Your task to perform on an android device: Open calendar and show me the fourth week of next month Image 0: 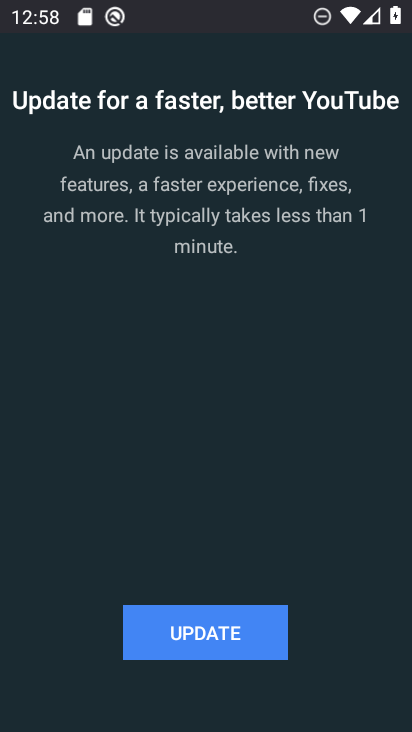
Step 0: press home button
Your task to perform on an android device: Open calendar and show me the fourth week of next month Image 1: 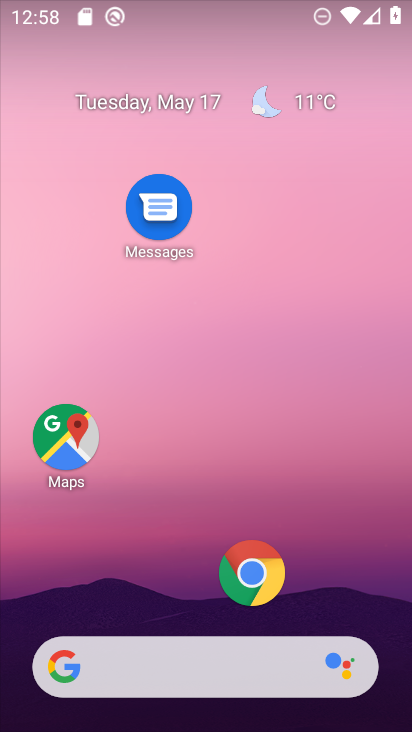
Step 1: drag from (186, 608) to (225, 150)
Your task to perform on an android device: Open calendar and show me the fourth week of next month Image 2: 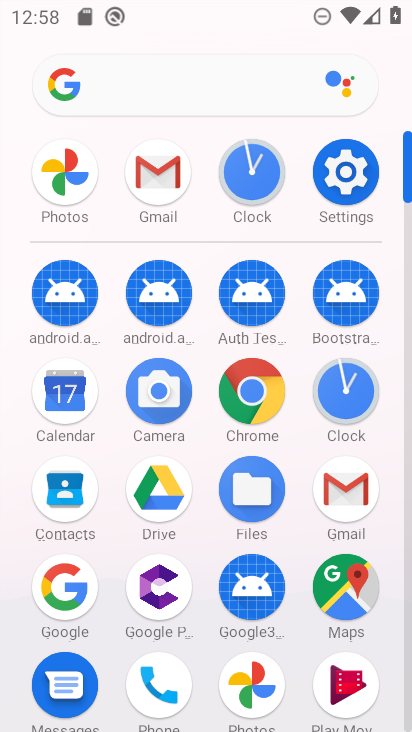
Step 2: click (63, 384)
Your task to perform on an android device: Open calendar and show me the fourth week of next month Image 3: 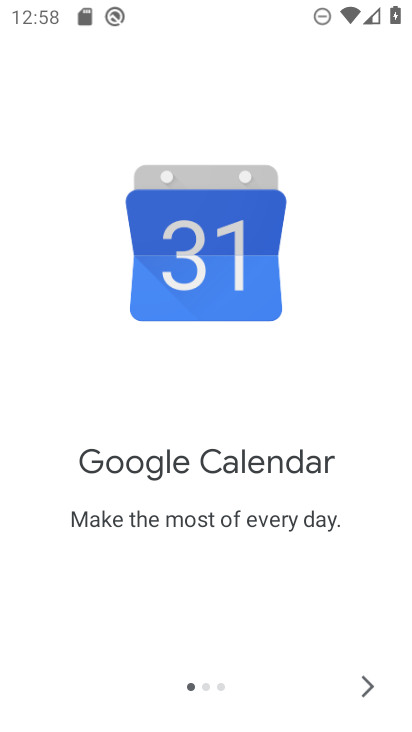
Step 3: click (366, 678)
Your task to perform on an android device: Open calendar and show me the fourth week of next month Image 4: 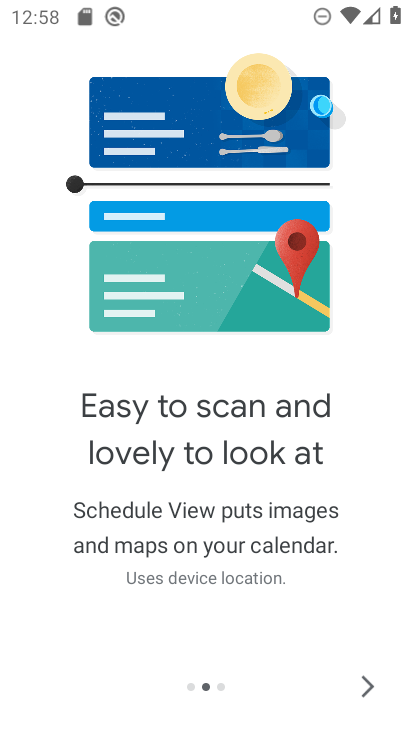
Step 4: click (372, 684)
Your task to perform on an android device: Open calendar and show me the fourth week of next month Image 5: 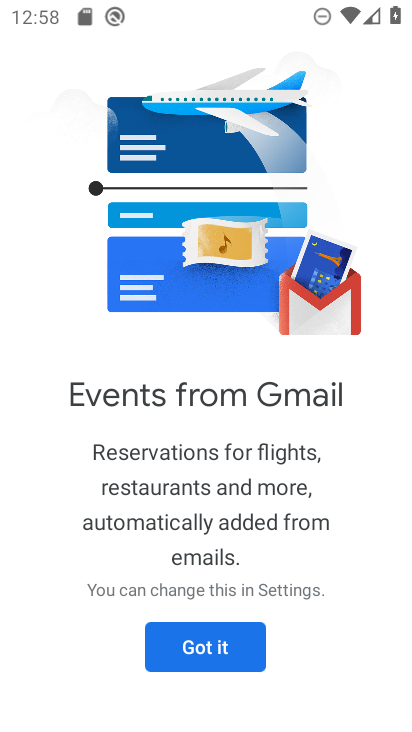
Step 5: click (206, 646)
Your task to perform on an android device: Open calendar and show me the fourth week of next month Image 6: 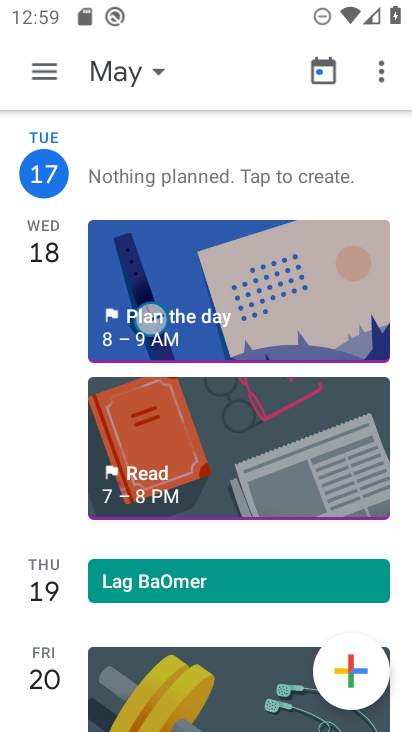
Step 6: click (49, 81)
Your task to perform on an android device: Open calendar and show me the fourth week of next month Image 7: 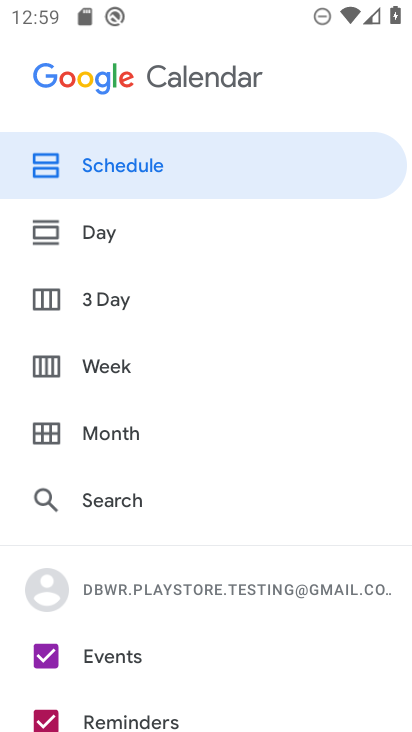
Step 7: click (71, 368)
Your task to perform on an android device: Open calendar and show me the fourth week of next month Image 8: 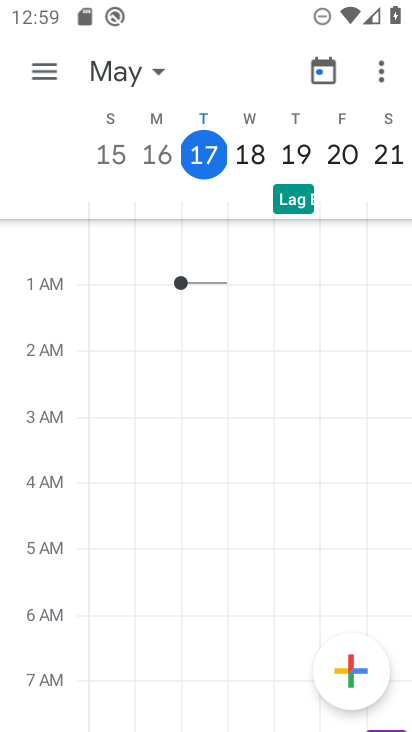
Step 8: drag from (385, 165) to (58, 148)
Your task to perform on an android device: Open calendar and show me the fourth week of next month Image 9: 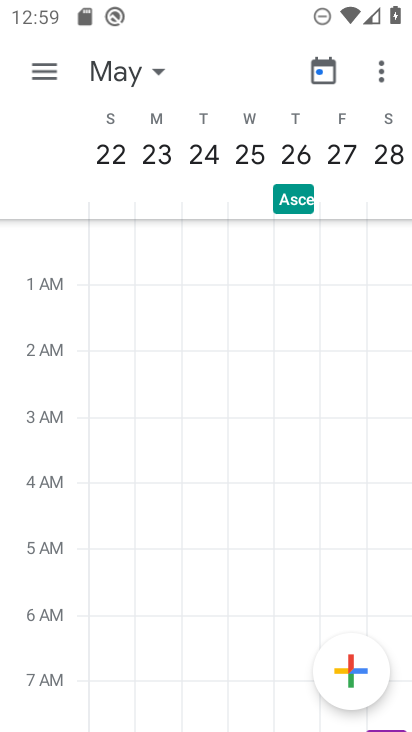
Step 9: drag from (383, 153) to (61, 134)
Your task to perform on an android device: Open calendar and show me the fourth week of next month Image 10: 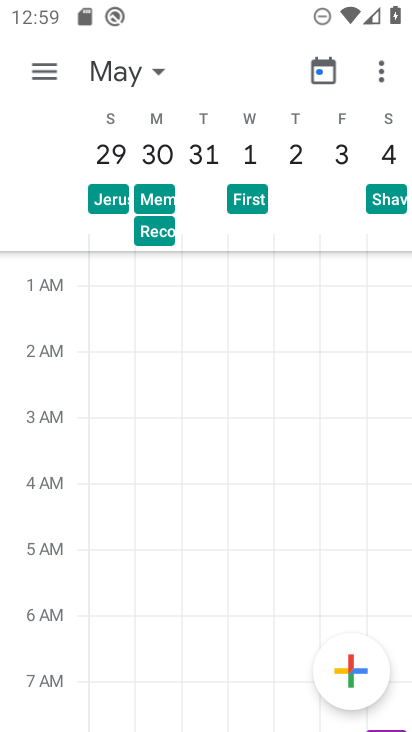
Step 10: drag from (386, 147) to (62, 126)
Your task to perform on an android device: Open calendar and show me the fourth week of next month Image 11: 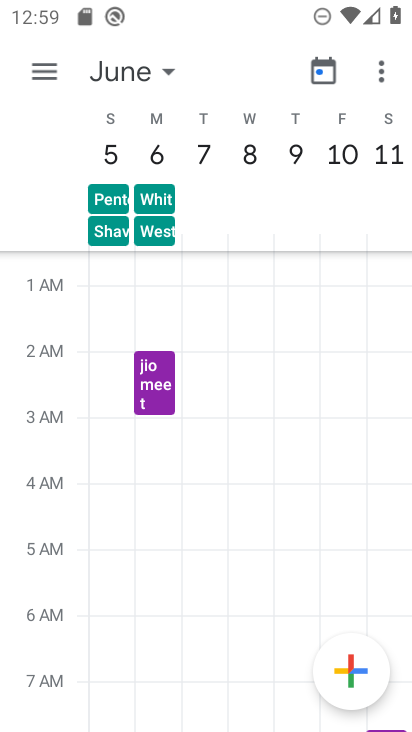
Step 11: drag from (386, 158) to (79, 174)
Your task to perform on an android device: Open calendar and show me the fourth week of next month Image 12: 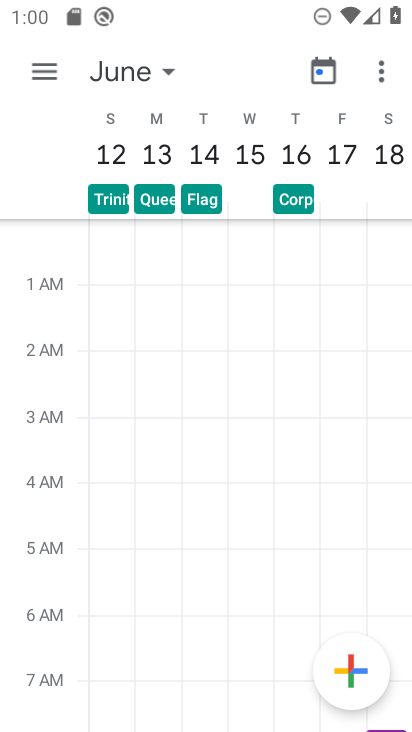
Step 12: drag from (389, 139) to (109, 149)
Your task to perform on an android device: Open calendar and show me the fourth week of next month Image 13: 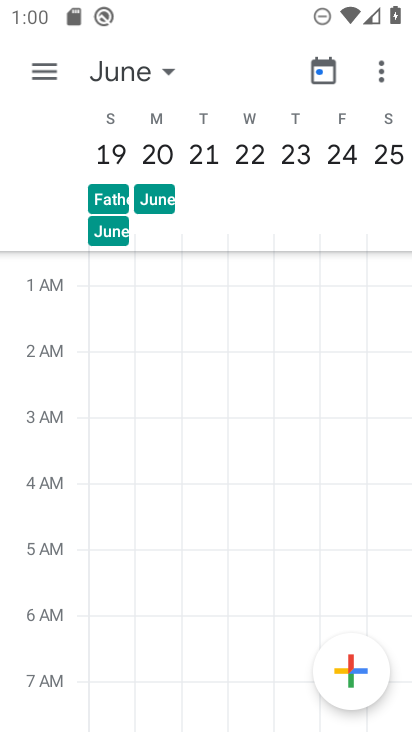
Step 13: click (110, 152)
Your task to perform on an android device: Open calendar and show me the fourth week of next month Image 14: 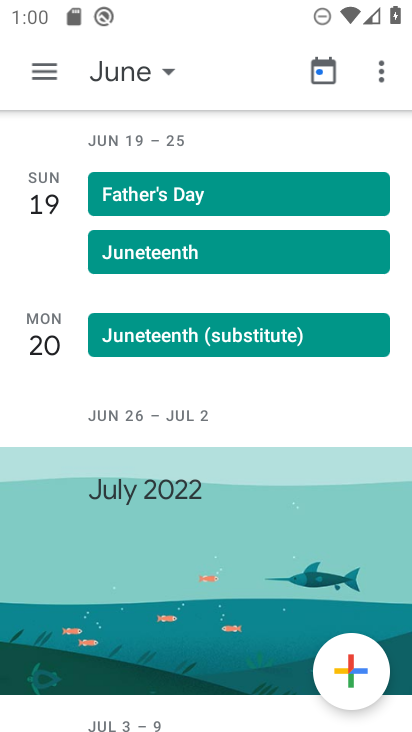
Step 14: task complete